Your task to perform on an android device: turn pop-ups off in chrome Image 0: 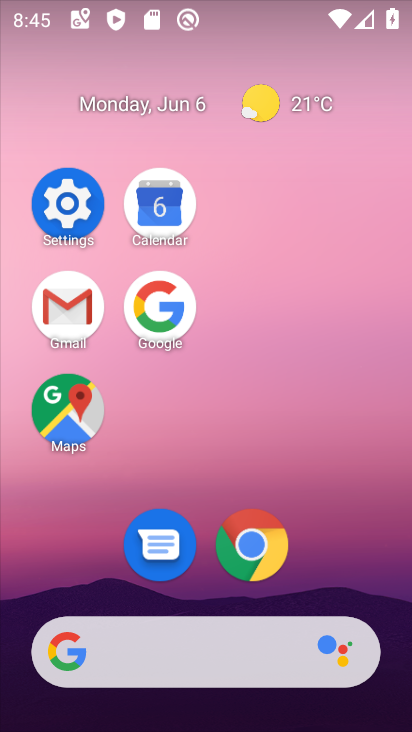
Step 0: click (260, 546)
Your task to perform on an android device: turn pop-ups off in chrome Image 1: 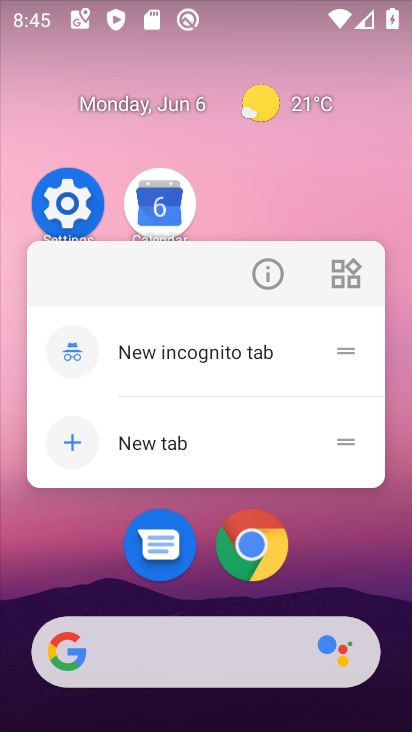
Step 1: click (269, 579)
Your task to perform on an android device: turn pop-ups off in chrome Image 2: 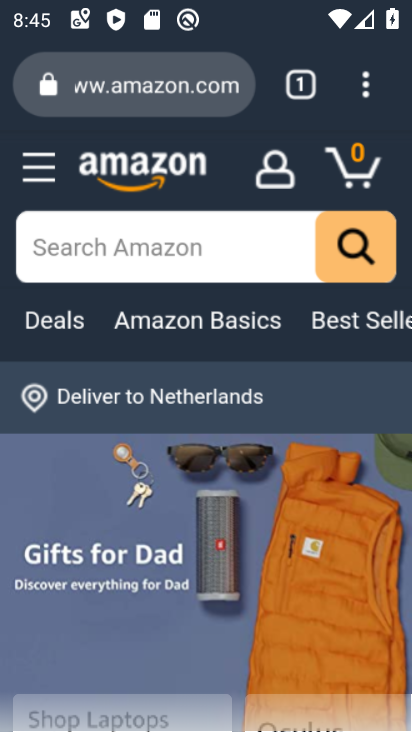
Step 2: click (367, 72)
Your task to perform on an android device: turn pop-ups off in chrome Image 3: 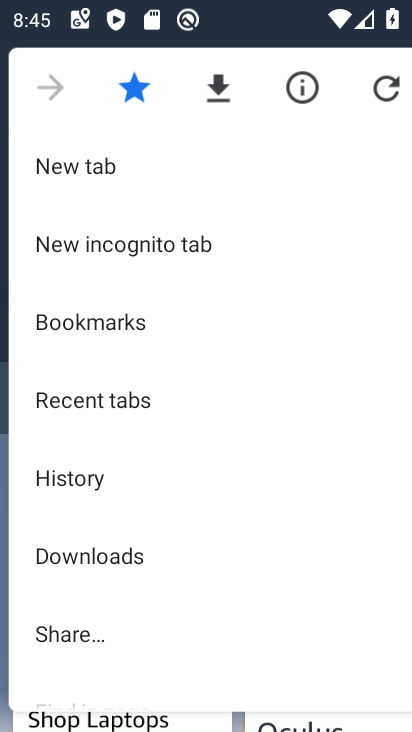
Step 3: drag from (211, 471) to (247, 170)
Your task to perform on an android device: turn pop-ups off in chrome Image 4: 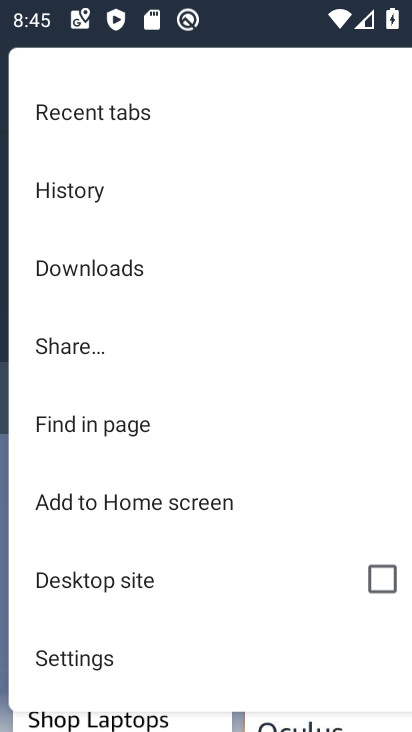
Step 4: click (115, 645)
Your task to perform on an android device: turn pop-ups off in chrome Image 5: 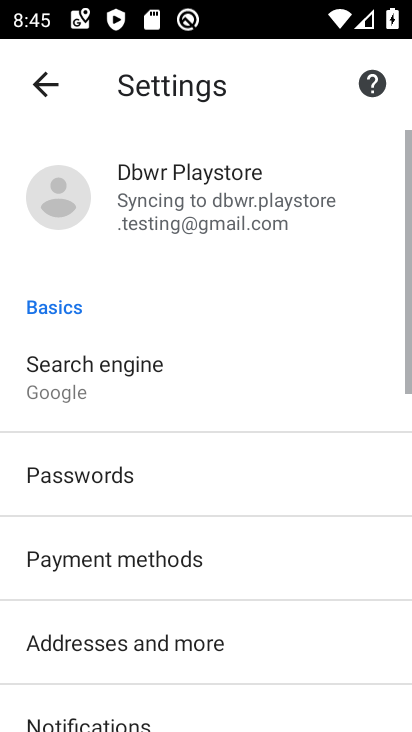
Step 5: drag from (115, 645) to (144, 240)
Your task to perform on an android device: turn pop-ups off in chrome Image 6: 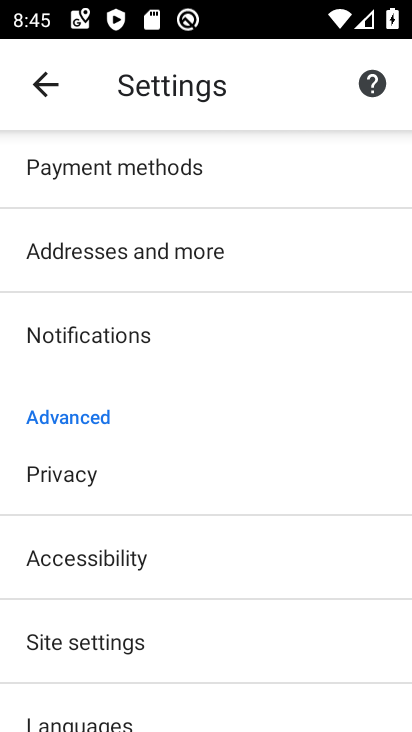
Step 6: click (114, 631)
Your task to perform on an android device: turn pop-ups off in chrome Image 7: 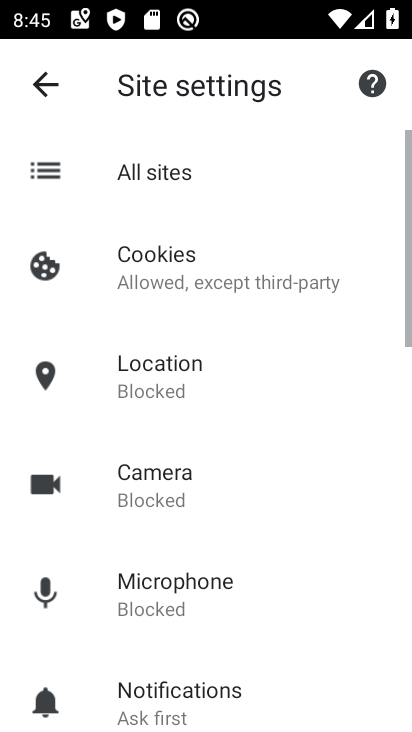
Step 7: drag from (110, 623) to (151, 214)
Your task to perform on an android device: turn pop-ups off in chrome Image 8: 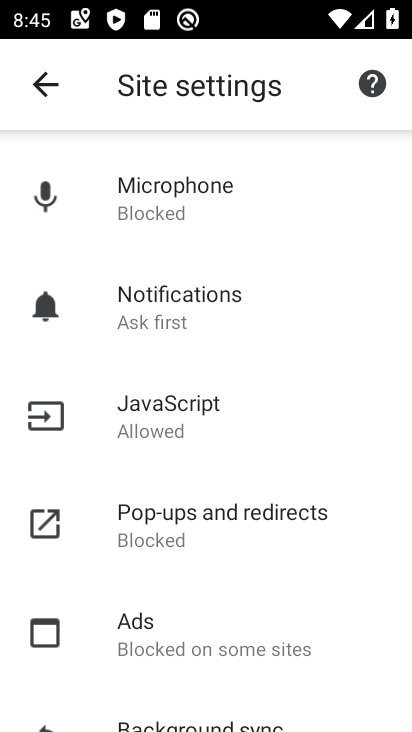
Step 8: click (198, 523)
Your task to perform on an android device: turn pop-ups off in chrome Image 9: 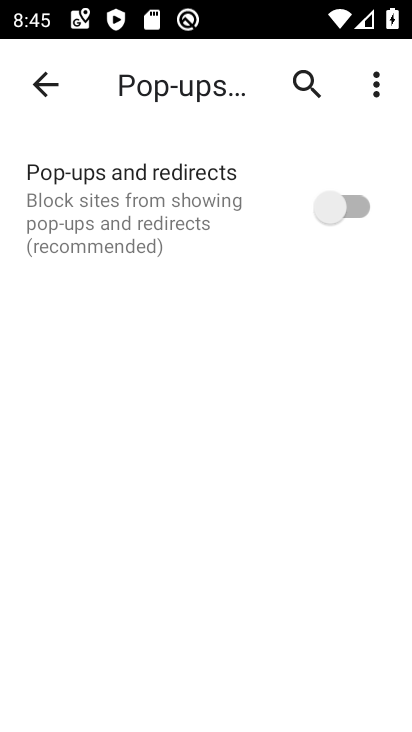
Step 9: task complete